Your task to perform on an android device: change keyboard looks Image 0: 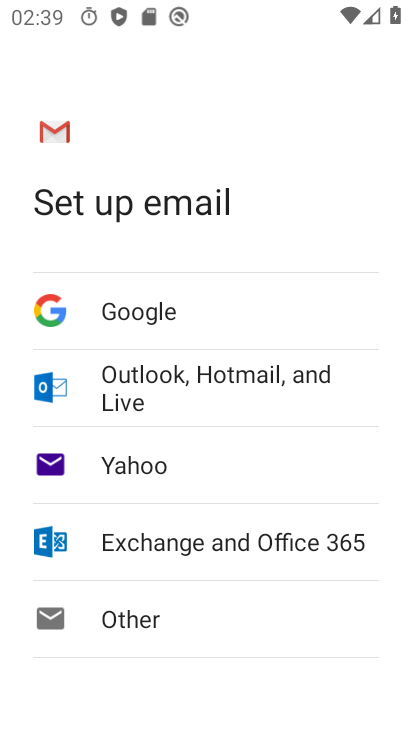
Step 0: press home button
Your task to perform on an android device: change keyboard looks Image 1: 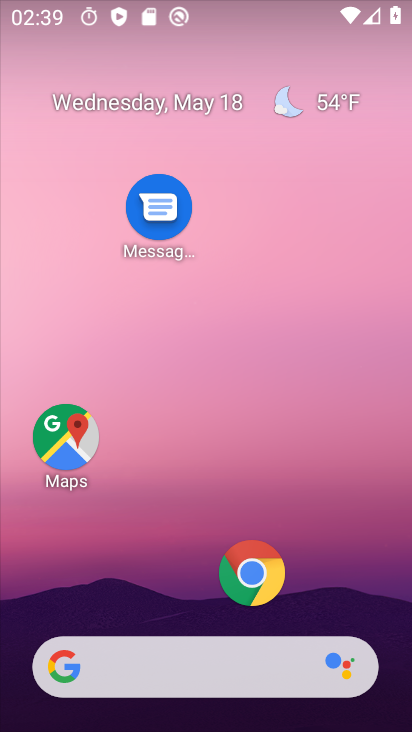
Step 1: drag from (171, 604) to (161, 256)
Your task to perform on an android device: change keyboard looks Image 2: 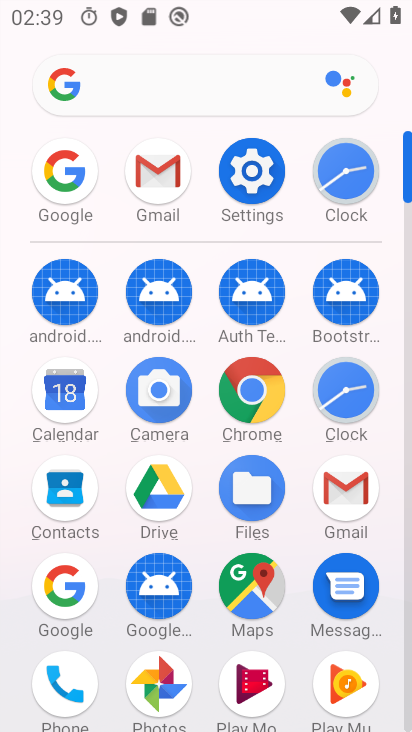
Step 2: click (270, 187)
Your task to perform on an android device: change keyboard looks Image 3: 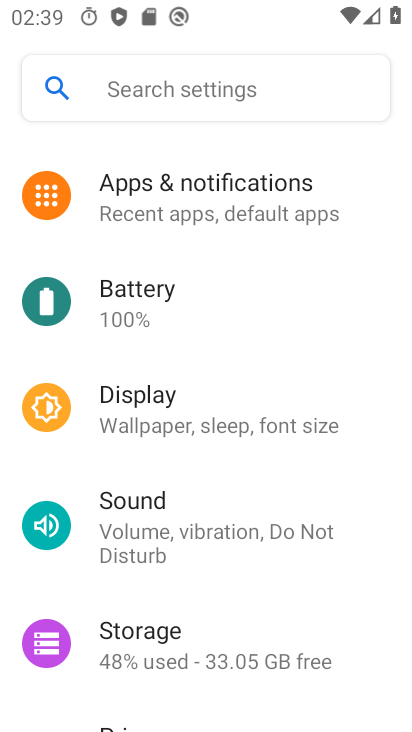
Step 3: drag from (225, 667) to (231, 345)
Your task to perform on an android device: change keyboard looks Image 4: 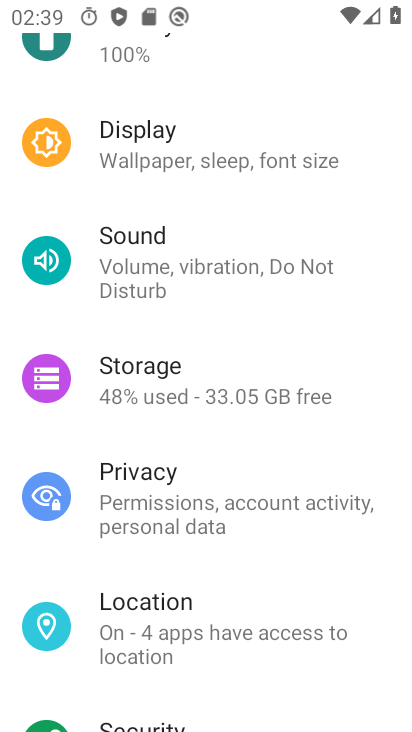
Step 4: drag from (190, 649) to (240, 323)
Your task to perform on an android device: change keyboard looks Image 5: 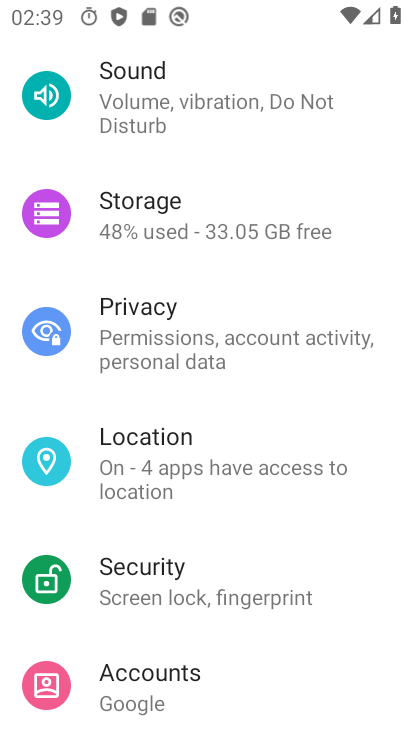
Step 5: drag from (247, 570) to (256, 327)
Your task to perform on an android device: change keyboard looks Image 6: 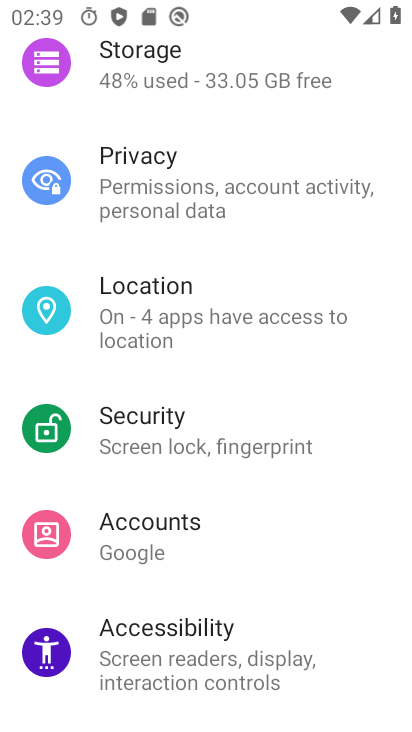
Step 6: drag from (219, 583) to (242, 349)
Your task to perform on an android device: change keyboard looks Image 7: 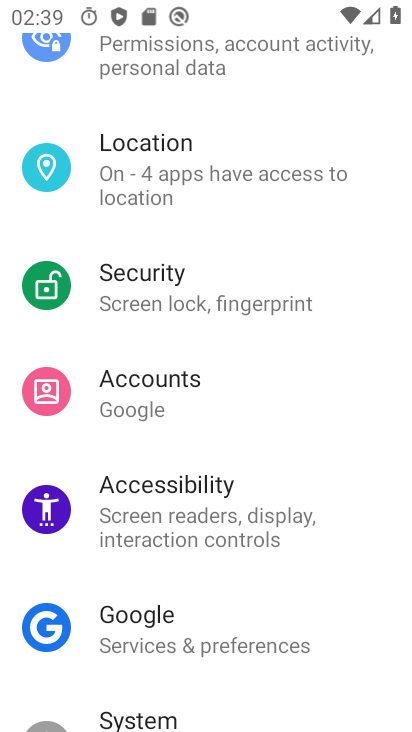
Step 7: drag from (209, 616) to (240, 348)
Your task to perform on an android device: change keyboard looks Image 8: 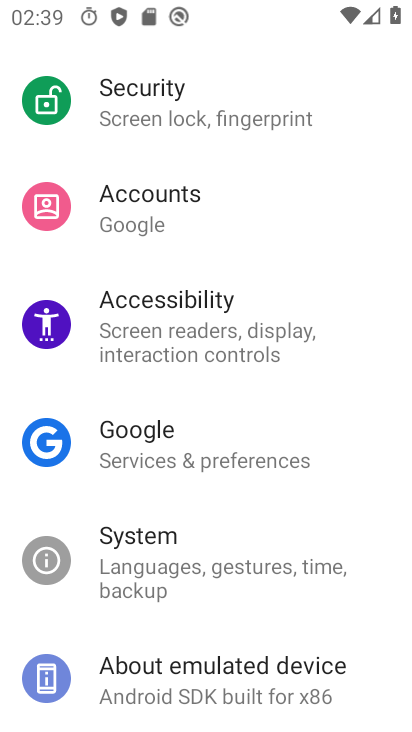
Step 8: drag from (161, 637) to (190, 439)
Your task to perform on an android device: change keyboard looks Image 9: 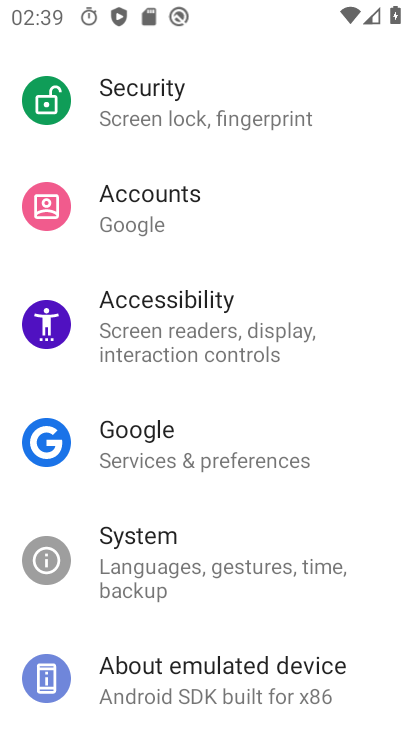
Step 9: click (150, 556)
Your task to perform on an android device: change keyboard looks Image 10: 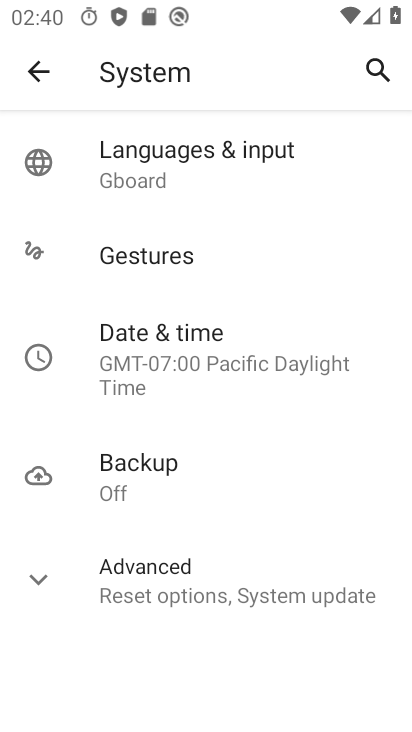
Step 10: click (213, 174)
Your task to perform on an android device: change keyboard looks Image 11: 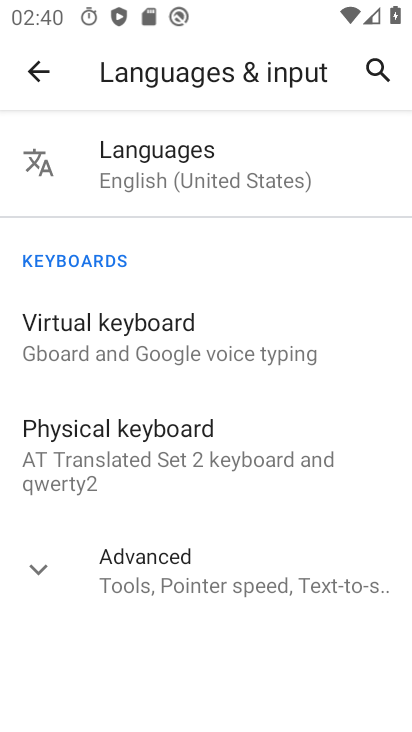
Step 11: click (120, 352)
Your task to perform on an android device: change keyboard looks Image 12: 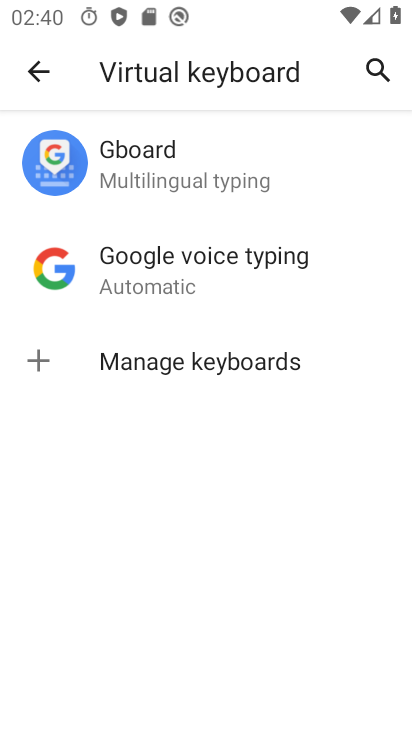
Step 12: click (128, 195)
Your task to perform on an android device: change keyboard looks Image 13: 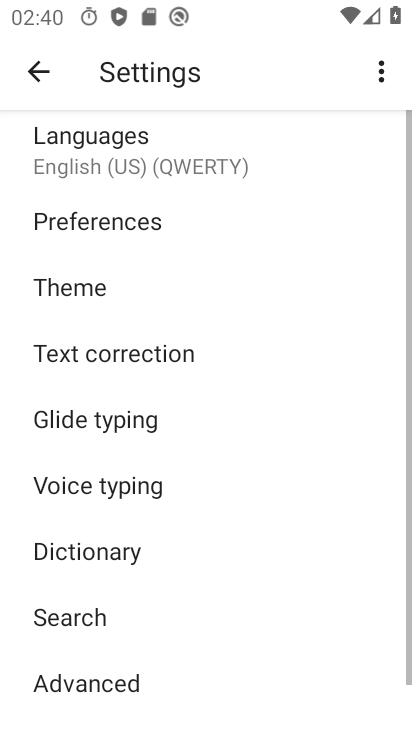
Step 13: click (108, 285)
Your task to perform on an android device: change keyboard looks Image 14: 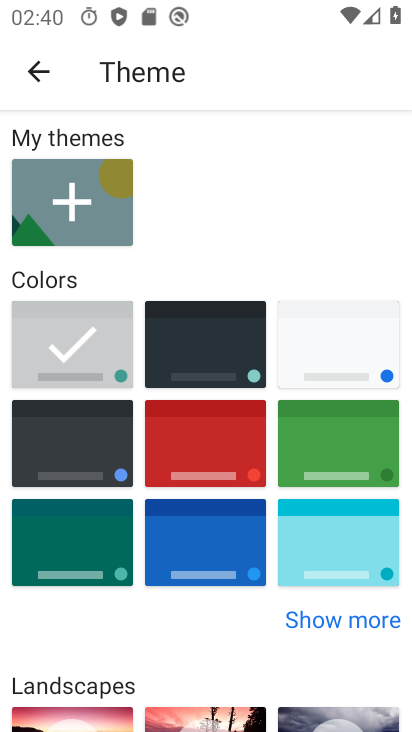
Step 14: click (286, 360)
Your task to perform on an android device: change keyboard looks Image 15: 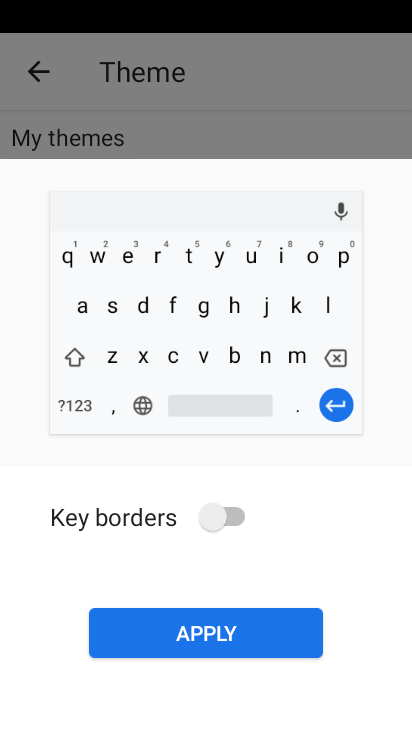
Step 15: click (255, 632)
Your task to perform on an android device: change keyboard looks Image 16: 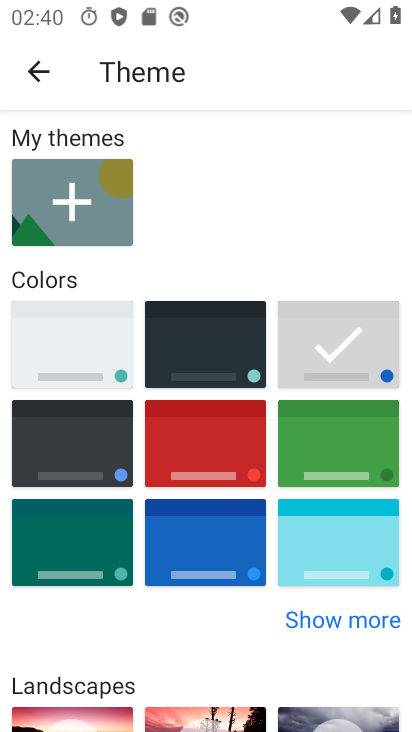
Step 16: task complete